Your task to perform on an android device: check out phone information Image 0: 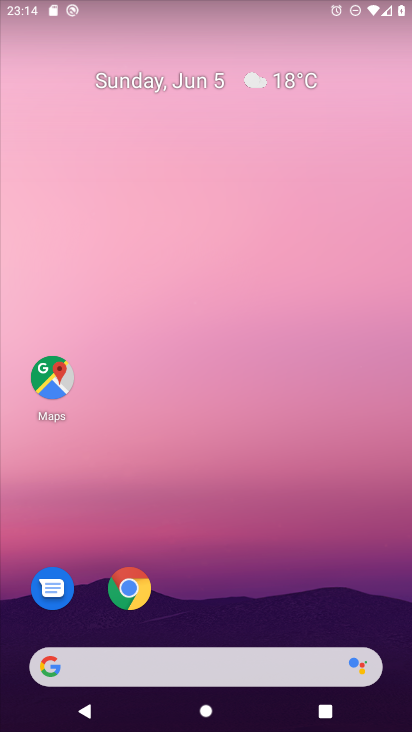
Step 0: drag from (257, 513) to (258, 137)
Your task to perform on an android device: check out phone information Image 1: 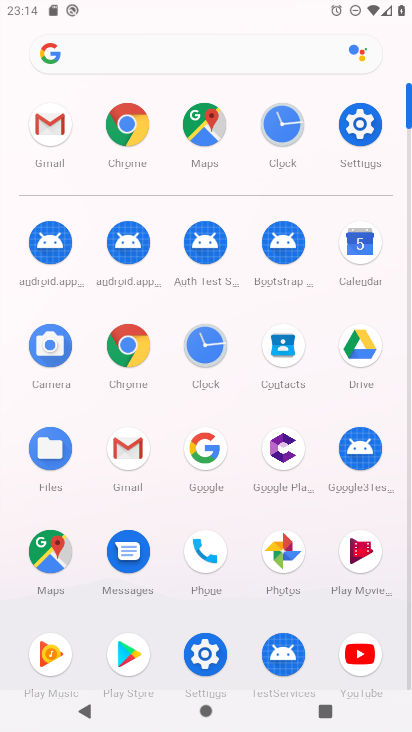
Step 1: click (190, 566)
Your task to perform on an android device: check out phone information Image 2: 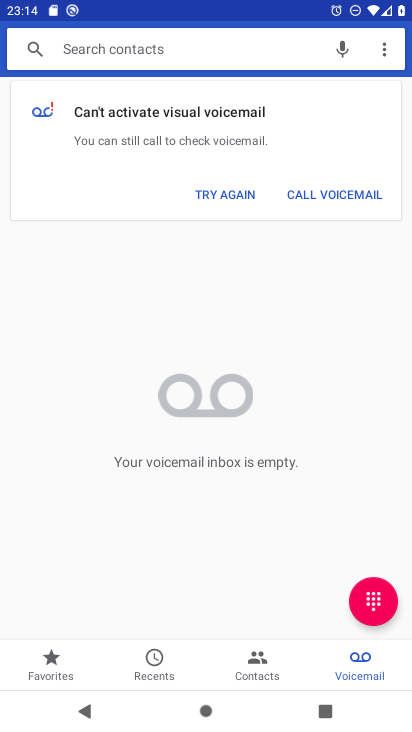
Step 2: click (145, 653)
Your task to perform on an android device: check out phone information Image 3: 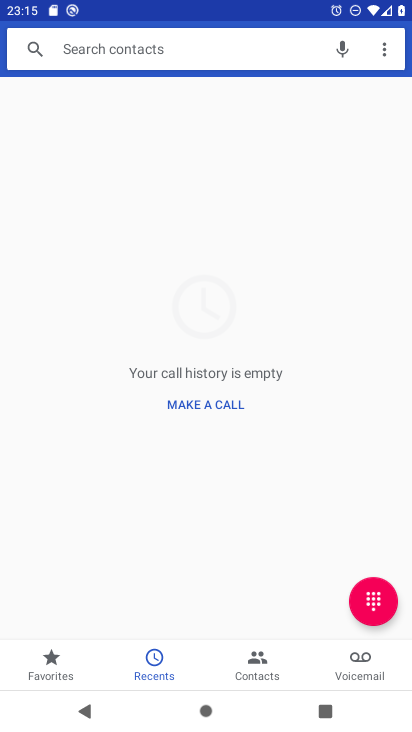
Step 3: task complete